Your task to perform on an android device: Go to Amazon Image 0: 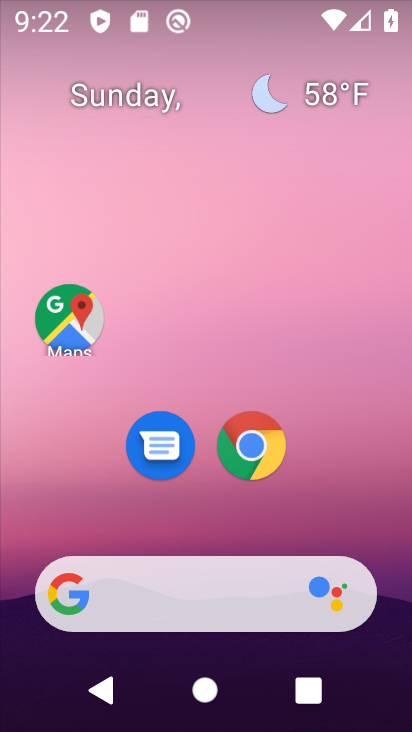
Step 0: drag from (236, 583) to (226, 87)
Your task to perform on an android device: Go to Amazon Image 1: 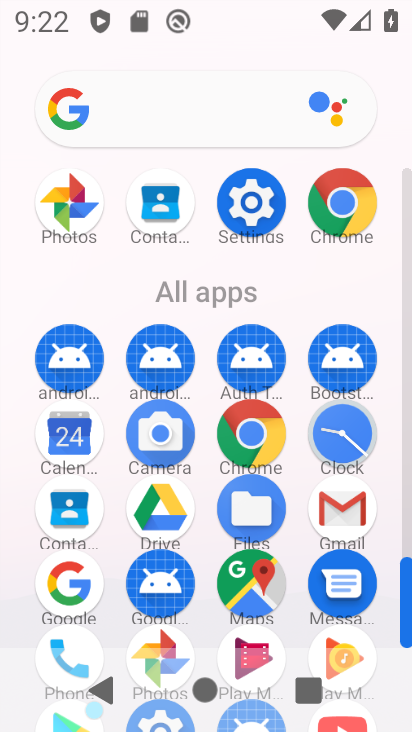
Step 1: click (338, 207)
Your task to perform on an android device: Go to Amazon Image 2: 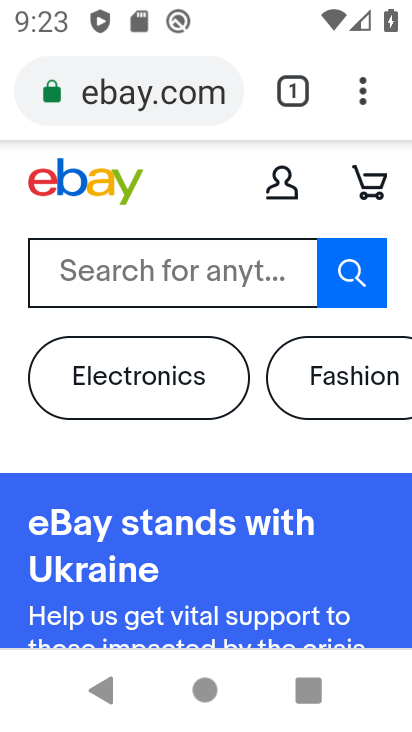
Step 2: click (144, 111)
Your task to perform on an android device: Go to Amazon Image 3: 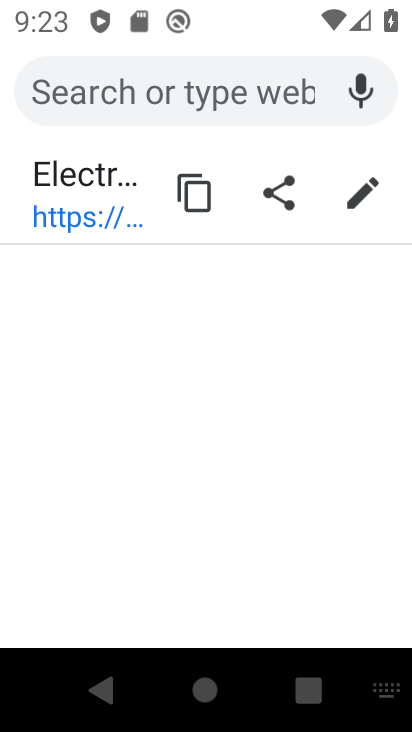
Step 3: type "amazon"
Your task to perform on an android device: Go to Amazon Image 4: 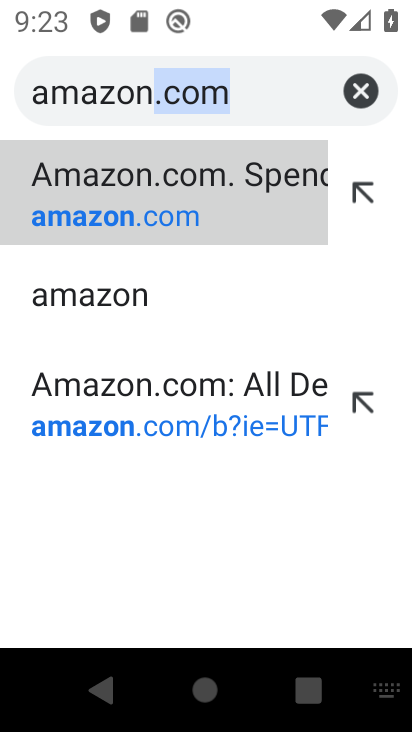
Step 4: click (96, 193)
Your task to perform on an android device: Go to Amazon Image 5: 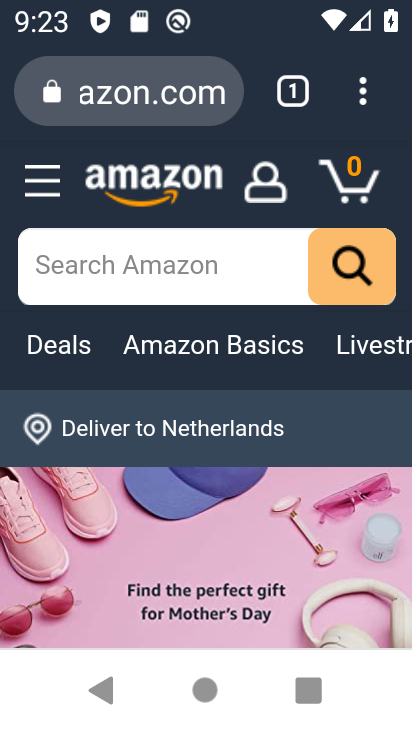
Step 5: task complete